Your task to perform on an android device: Go to CNN.com Image 0: 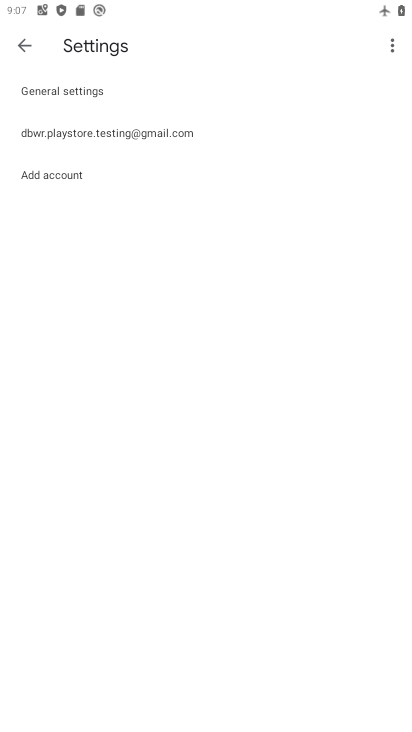
Step 0: press home button
Your task to perform on an android device: Go to CNN.com Image 1: 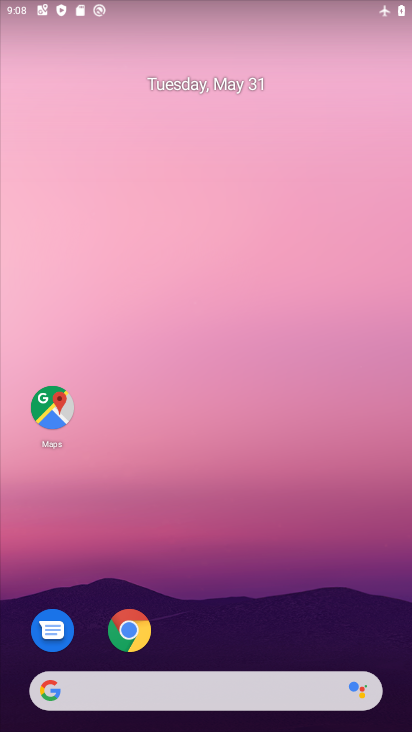
Step 1: drag from (226, 580) to (251, 218)
Your task to perform on an android device: Go to CNN.com Image 2: 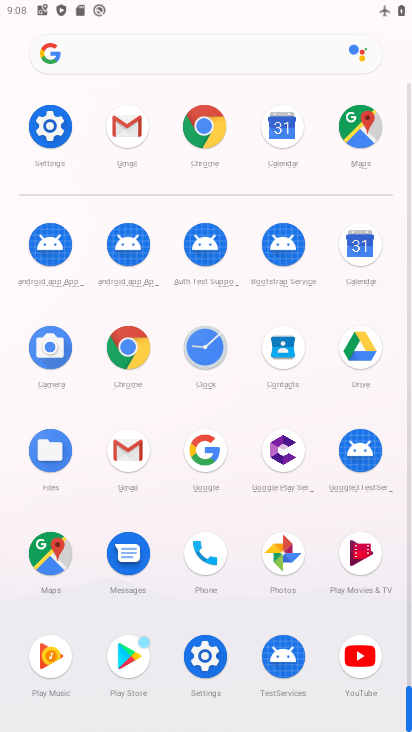
Step 2: click (203, 115)
Your task to perform on an android device: Go to CNN.com Image 3: 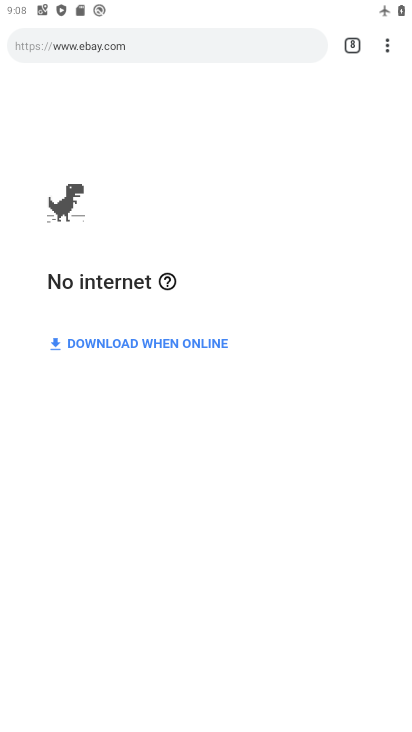
Step 3: click (382, 49)
Your task to perform on an android device: Go to CNN.com Image 4: 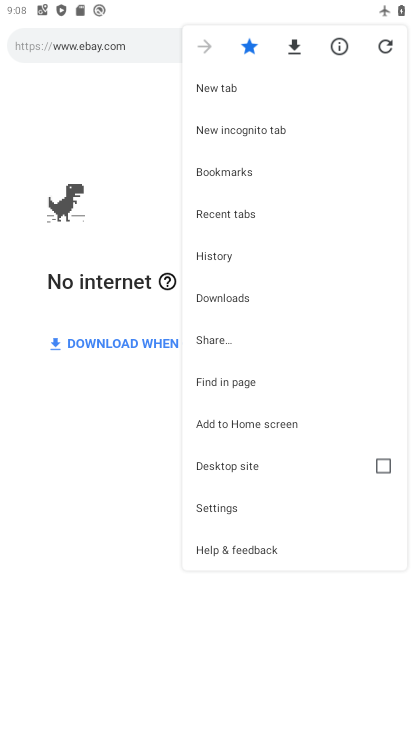
Step 4: click (228, 87)
Your task to perform on an android device: Go to CNN.com Image 5: 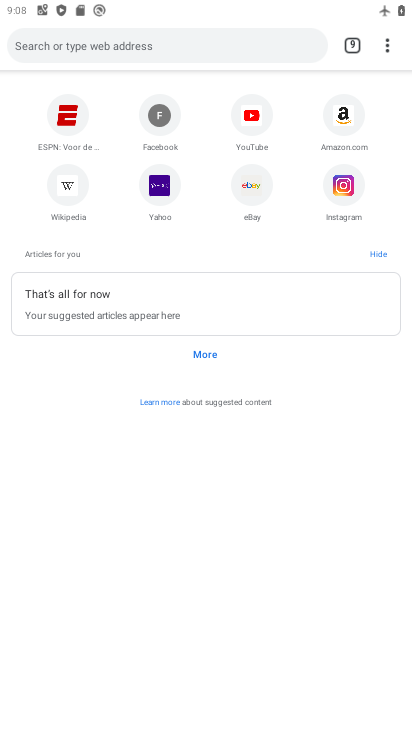
Step 5: click (113, 36)
Your task to perform on an android device: Go to CNN.com Image 6: 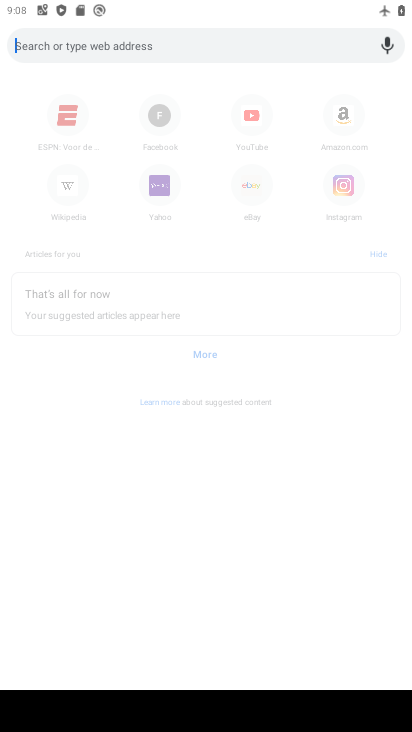
Step 6: type "CNN.com"
Your task to perform on an android device: Go to CNN.com Image 7: 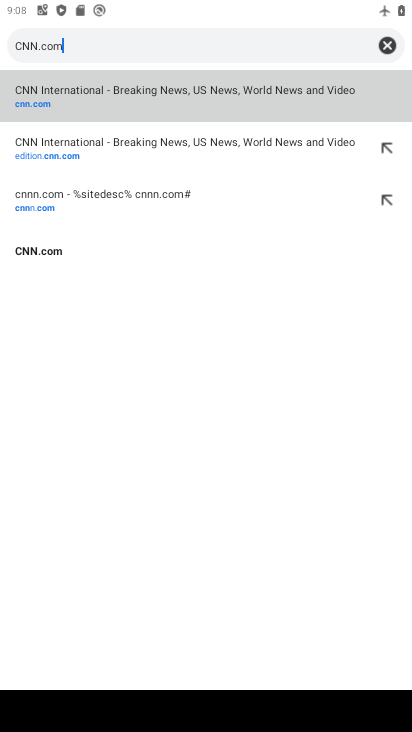
Step 7: click (162, 97)
Your task to perform on an android device: Go to CNN.com Image 8: 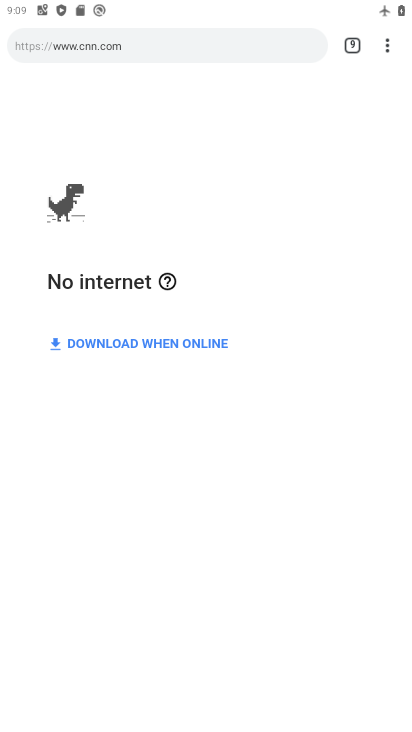
Step 8: task complete